Your task to perform on an android device: Open Google Chrome and open the bookmarks view Image 0: 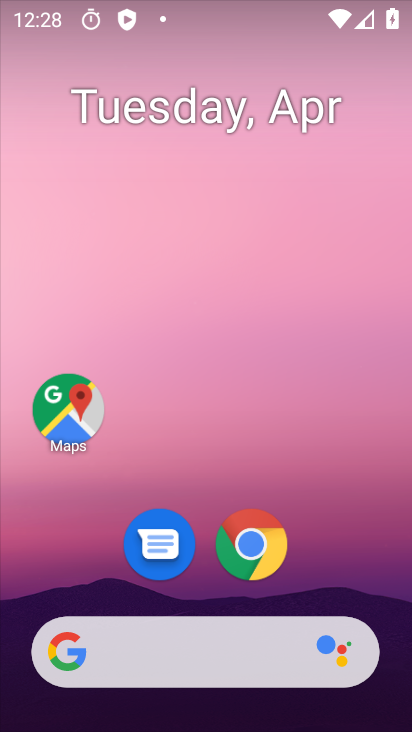
Step 0: click (271, 539)
Your task to perform on an android device: Open Google Chrome and open the bookmarks view Image 1: 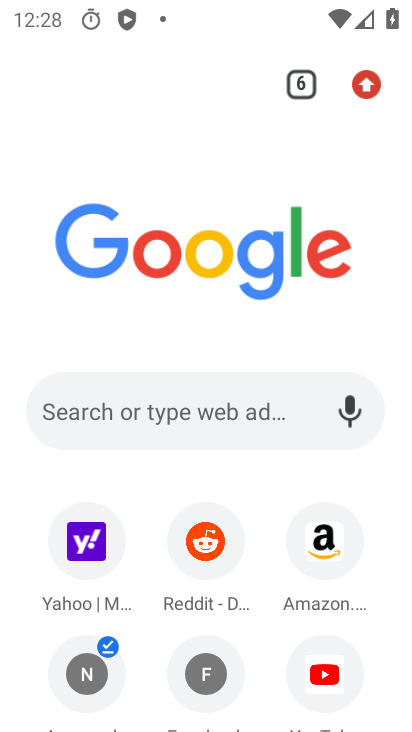
Step 1: click (372, 85)
Your task to perform on an android device: Open Google Chrome and open the bookmarks view Image 2: 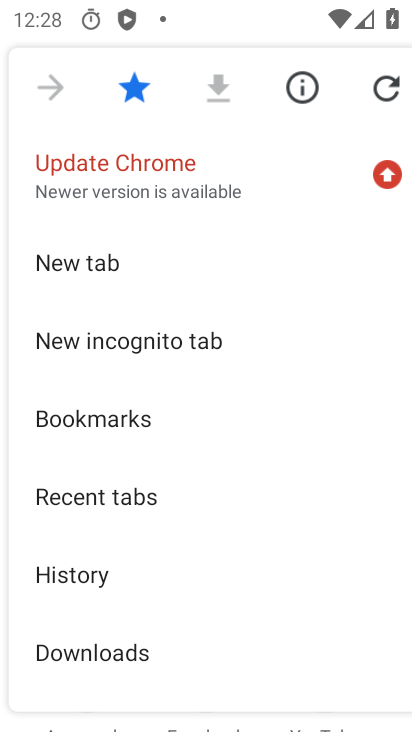
Step 2: click (60, 417)
Your task to perform on an android device: Open Google Chrome and open the bookmarks view Image 3: 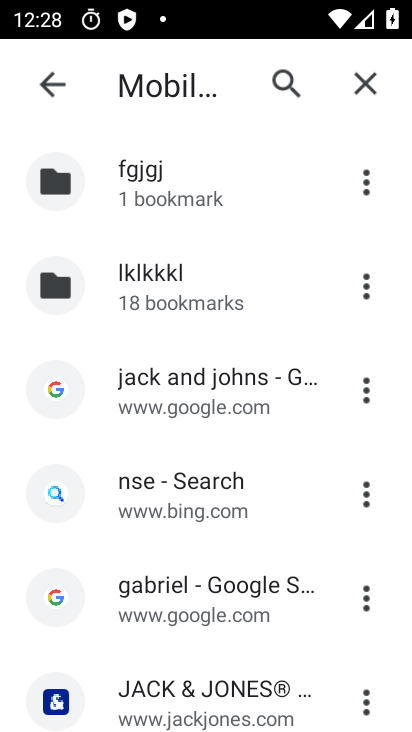
Step 3: task complete